Your task to perform on an android device: Go to Google Image 0: 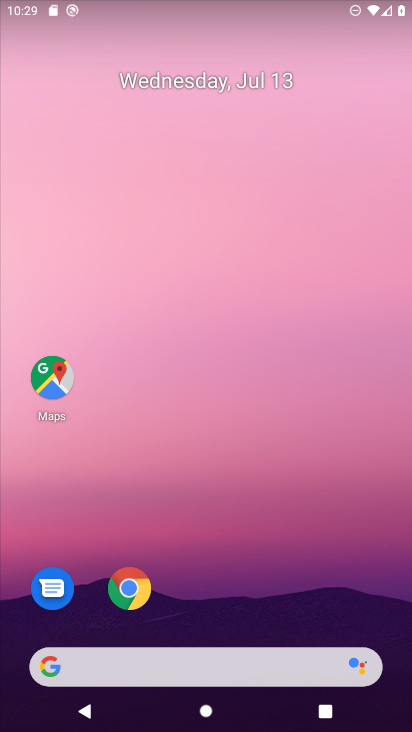
Step 0: click (190, 660)
Your task to perform on an android device: Go to Google Image 1: 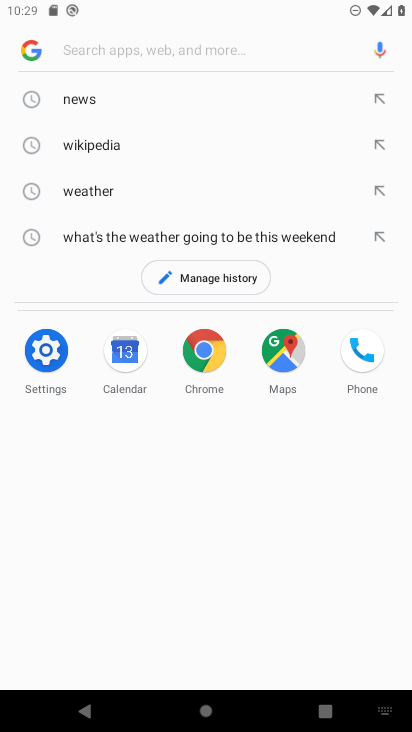
Step 1: task complete